Your task to perform on an android device: Search for vegetarian restaurants on Maps Image 0: 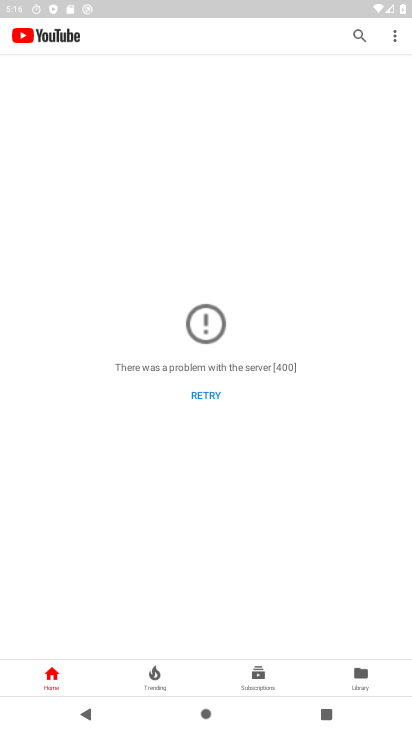
Step 0: press home button
Your task to perform on an android device: Search for vegetarian restaurants on Maps Image 1: 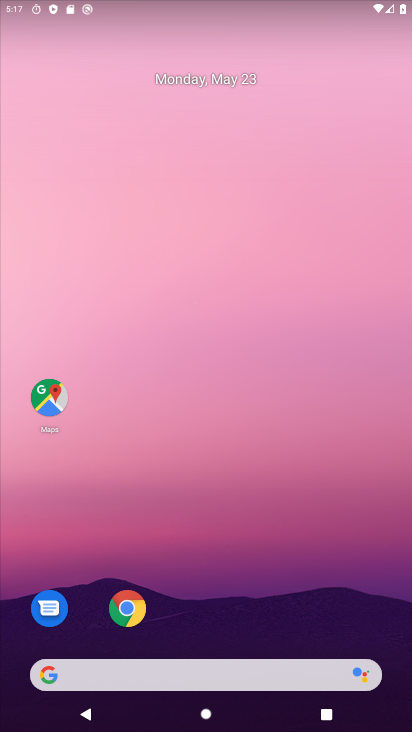
Step 1: click (58, 388)
Your task to perform on an android device: Search for vegetarian restaurants on Maps Image 2: 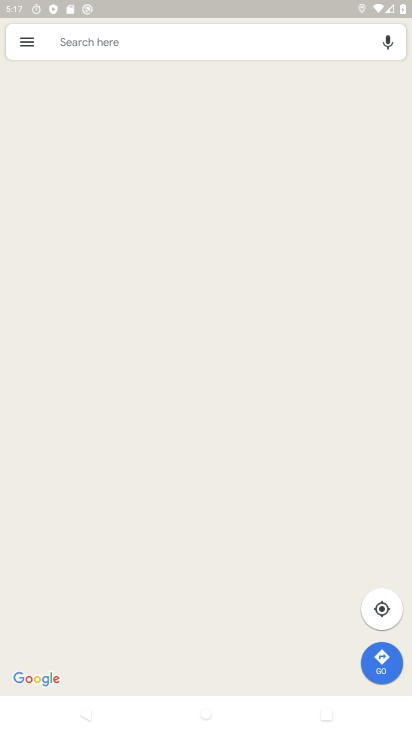
Step 2: click (182, 39)
Your task to perform on an android device: Search for vegetarian restaurants on Maps Image 3: 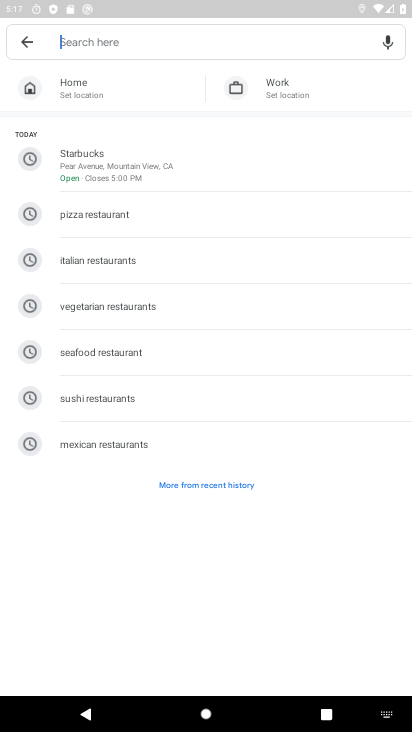
Step 3: type "Vegetarian restaurants"
Your task to perform on an android device: Search for vegetarian restaurants on Maps Image 4: 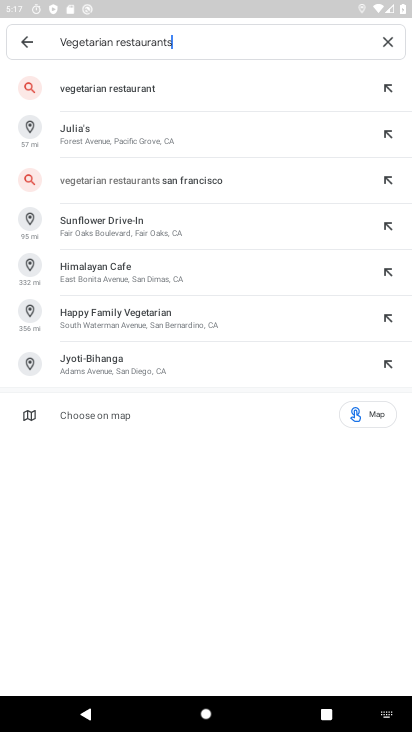
Step 4: click (177, 78)
Your task to perform on an android device: Search for vegetarian restaurants on Maps Image 5: 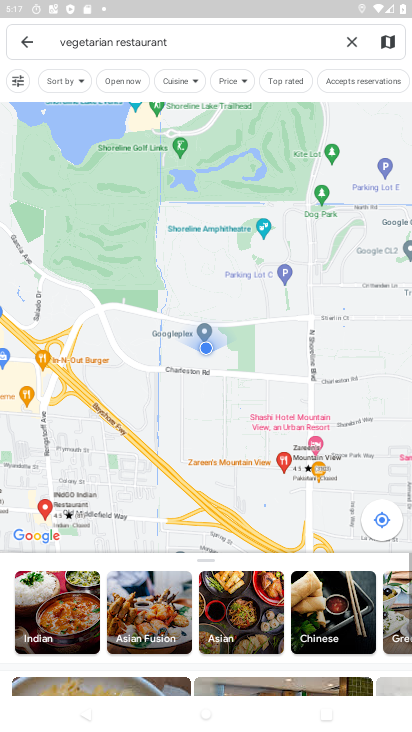
Step 5: task complete